Your task to perform on an android device: Clear the shopping cart on target. Add "dell xps" to the cart on target Image 0: 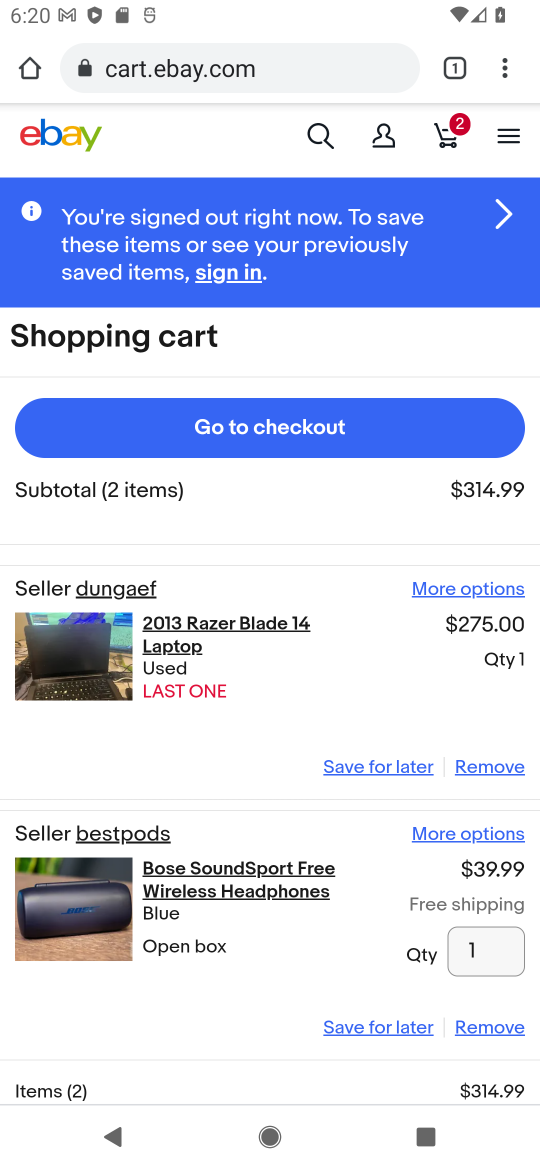
Step 0: press home button
Your task to perform on an android device: Clear the shopping cart on target. Add "dell xps" to the cart on target Image 1: 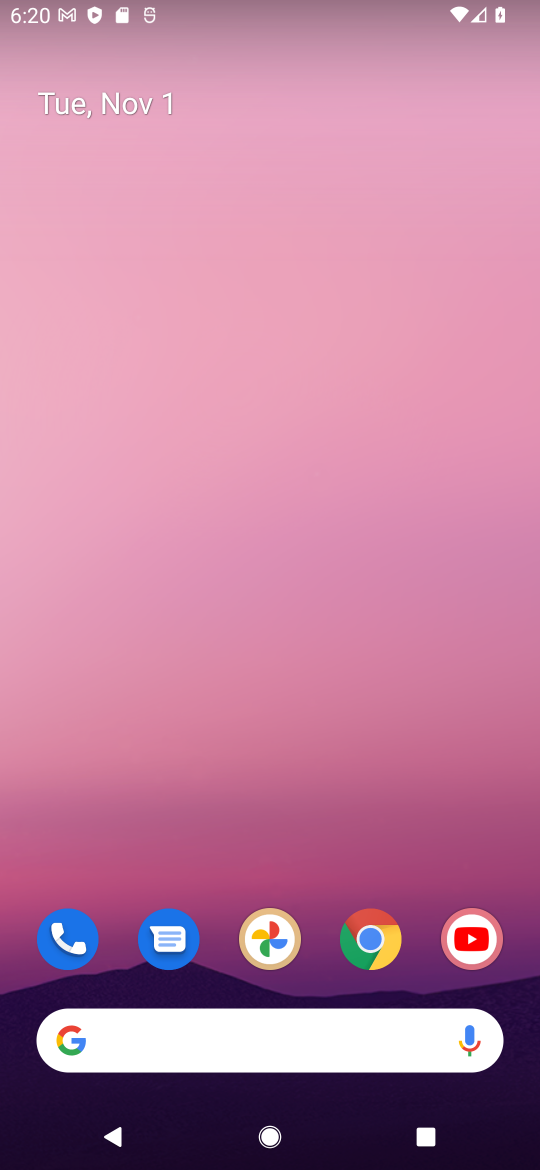
Step 1: drag from (288, 919) to (325, 87)
Your task to perform on an android device: Clear the shopping cart on target. Add "dell xps" to the cart on target Image 2: 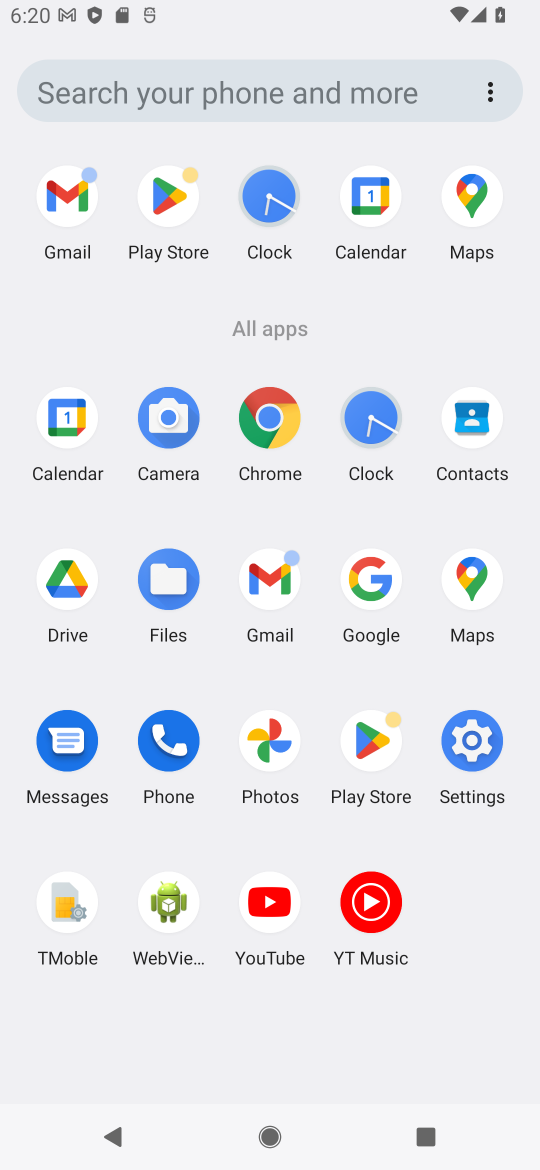
Step 2: click (261, 422)
Your task to perform on an android device: Clear the shopping cart on target. Add "dell xps" to the cart on target Image 3: 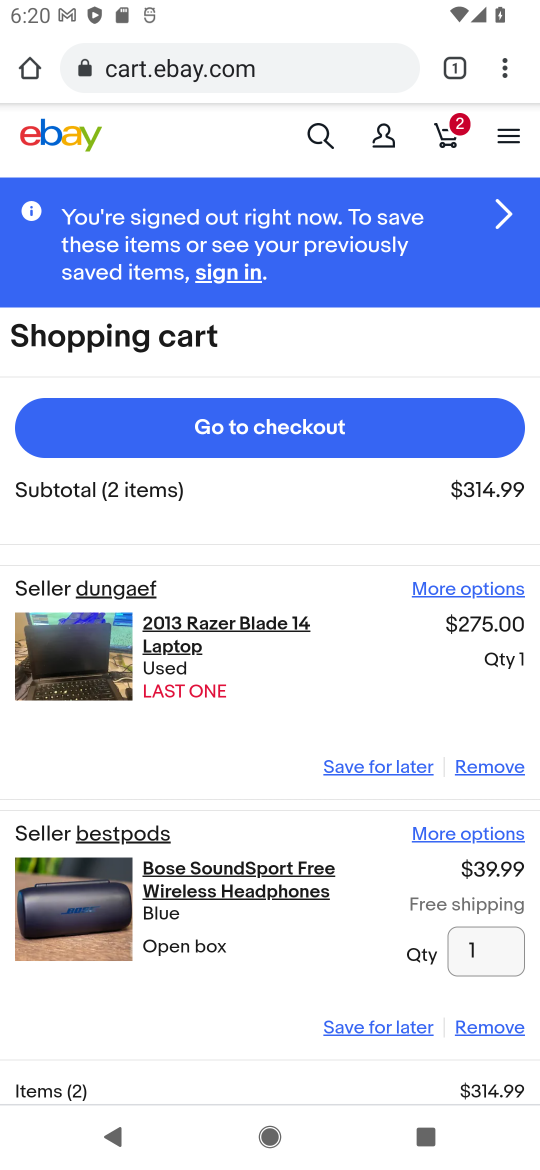
Step 3: click (239, 88)
Your task to perform on an android device: Clear the shopping cart on target. Add "dell xps" to the cart on target Image 4: 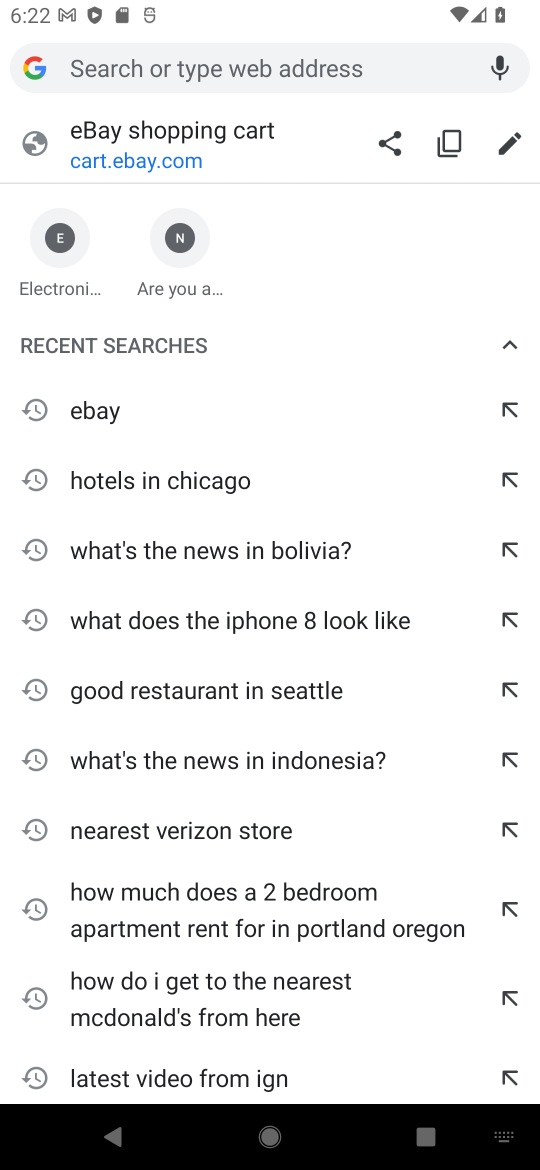
Step 4: type " target"
Your task to perform on an android device: Clear the shopping cart on target. Add "dell xps" to the cart on target Image 5: 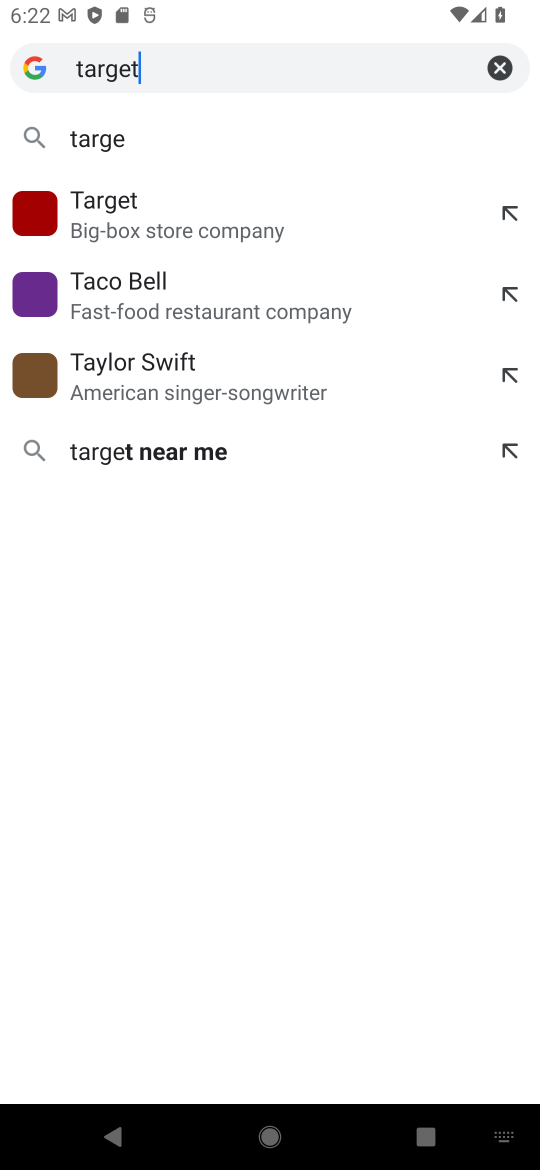
Step 5: press enter
Your task to perform on an android device: Clear the shopping cart on target. Add "dell xps" to the cart on target Image 6: 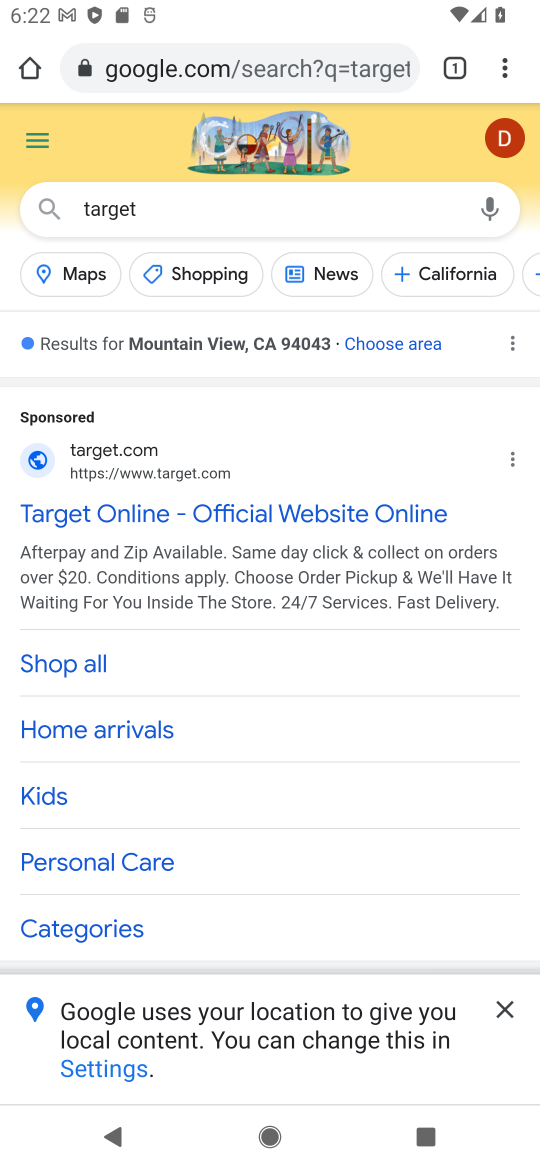
Step 6: click (136, 524)
Your task to perform on an android device: Clear the shopping cart on target. Add "dell xps" to the cart on target Image 7: 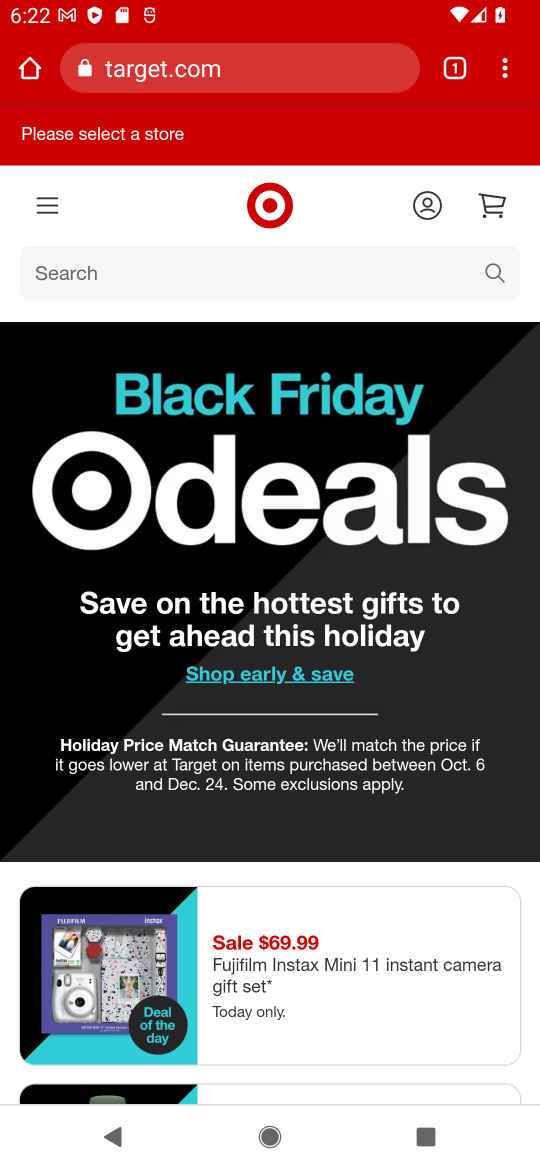
Step 7: click (195, 273)
Your task to perform on an android device: Clear the shopping cart on target. Add "dell xps" to the cart on target Image 8: 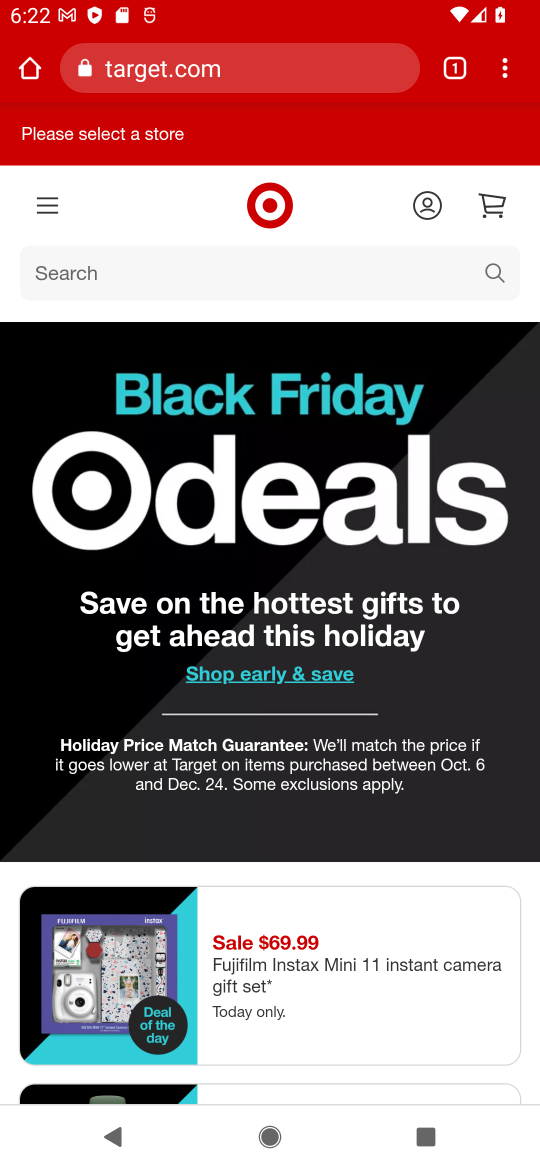
Step 8: click (195, 273)
Your task to perform on an android device: Clear the shopping cart on target. Add "dell xps" to the cart on target Image 9: 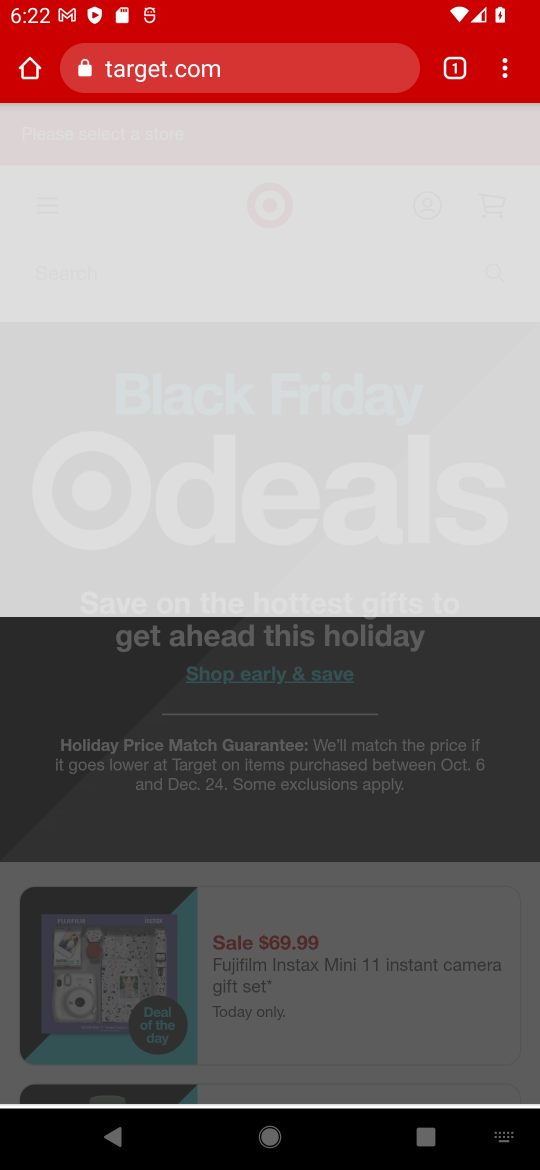
Step 9: click (201, 290)
Your task to perform on an android device: Clear the shopping cart on target. Add "dell xps" to the cart on target Image 10: 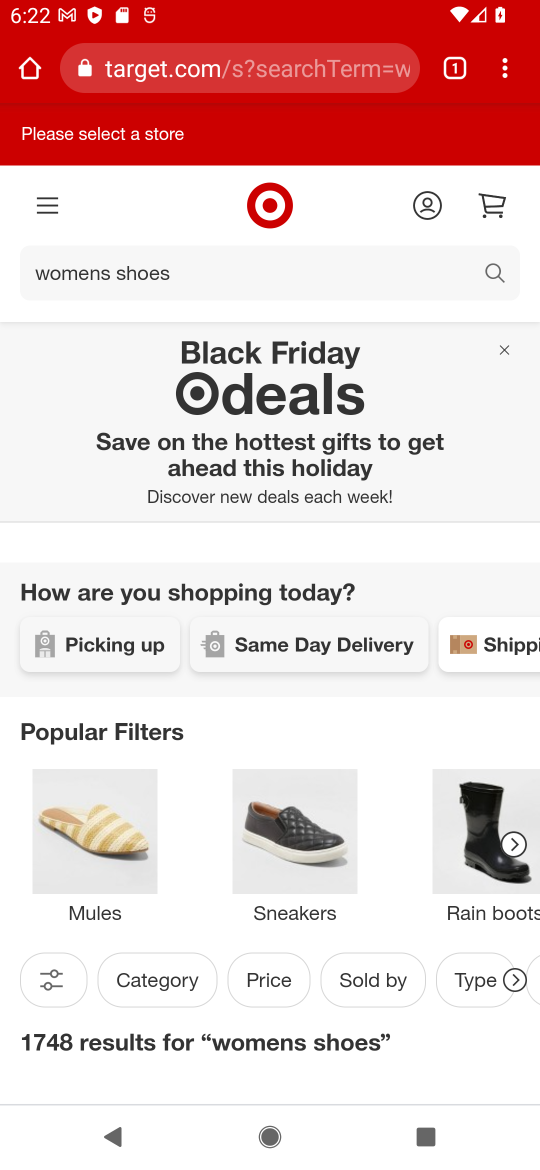
Step 10: click (239, 267)
Your task to perform on an android device: Clear the shopping cart on target. Add "dell xps" to the cart on target Image 11: 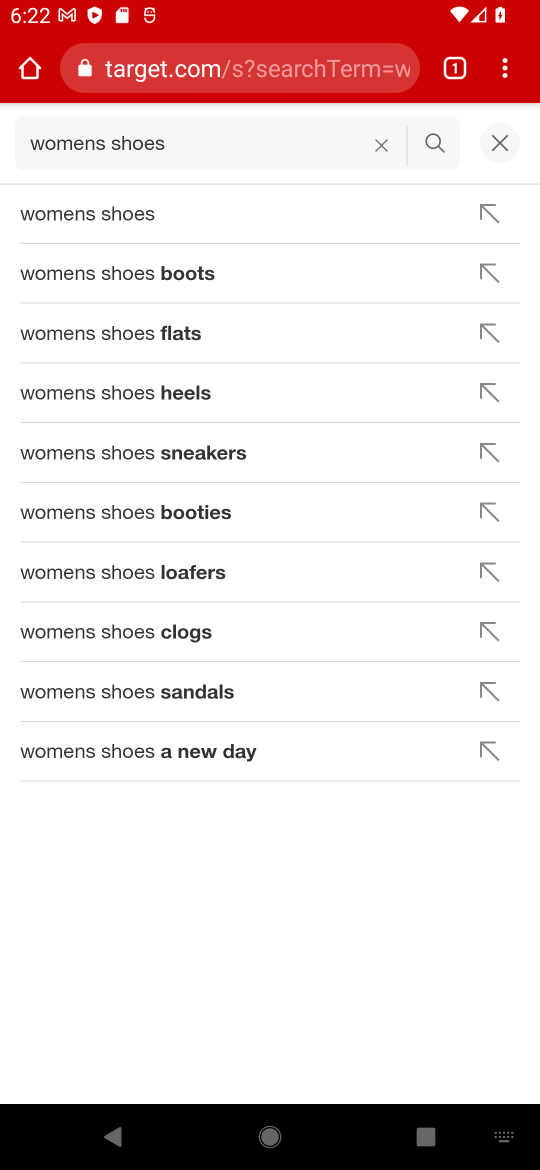
Step 11: click (386, 140)
Your task to perform on an android device: Clear the shopping cart on target. Add "dell xps" to the cart on target Image 12: 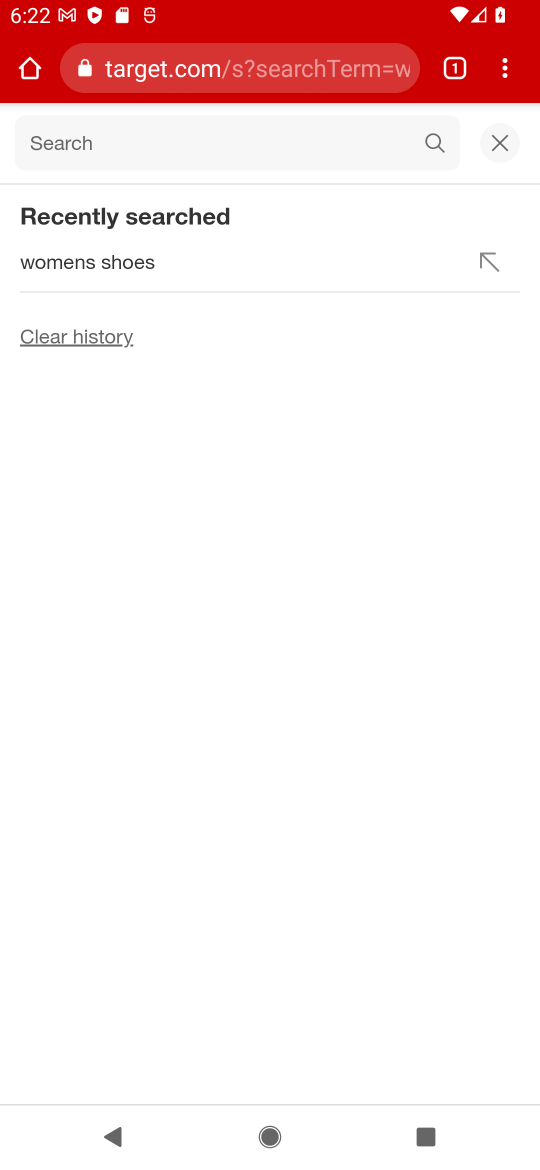
Step 12: type "dell xps"
Your task to perform on an android device: Clear the shopping cart on target. Add "dell xps" to the cart on target Image 13: 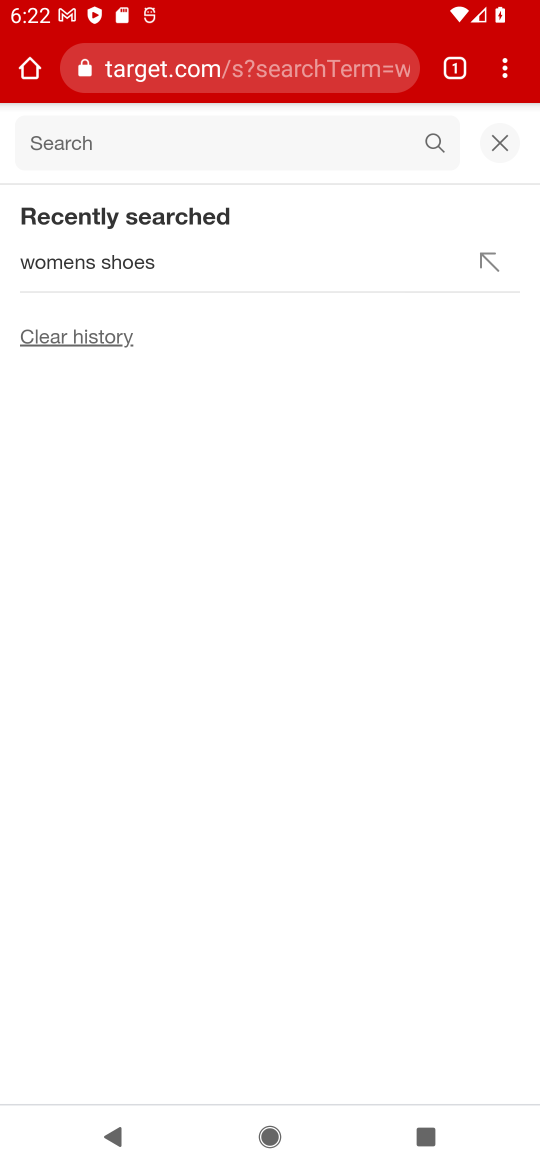
Step 13: press enter
Your task to perform on an android device: Clear the shopping cart on target. Add "dell xps" to the cart on target Image 14: 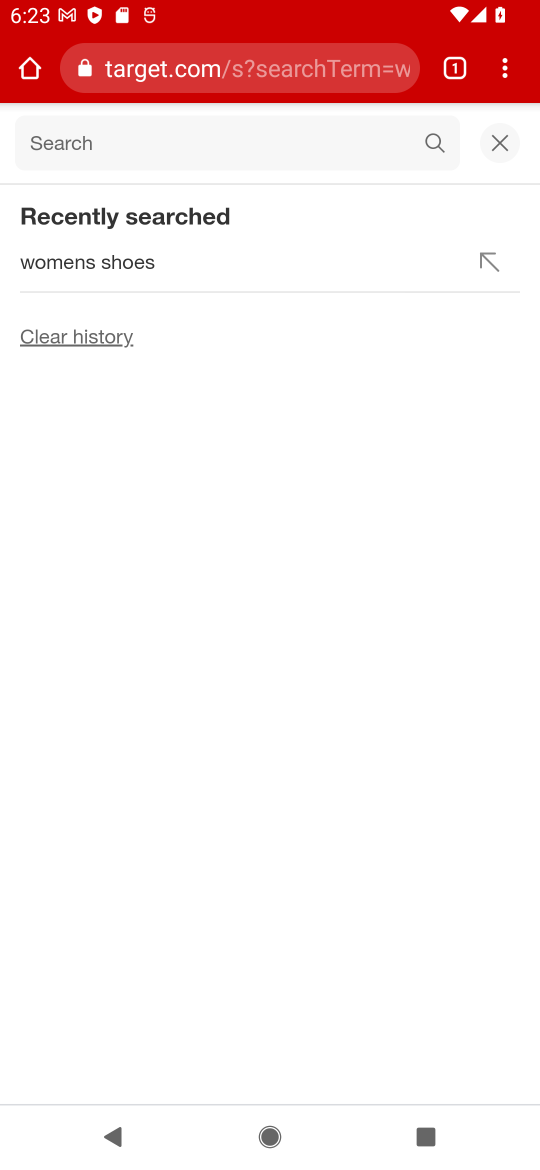
Step 14: click (182, 152)
Your task to perform on an android device: Clear the shopping cart on target. Add "dell xps" to the cart on target Image 15: 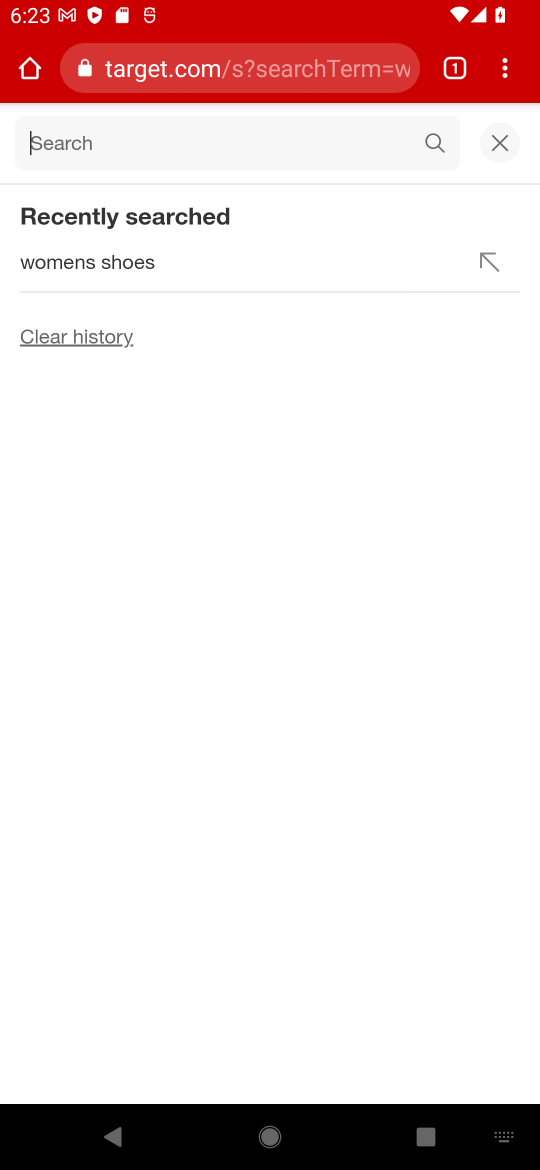
Step 15: type "dell xps"
Your task to perform on an android device: Clear the shopping cart on target. Add "dell xps" to the cart on target Image 16: 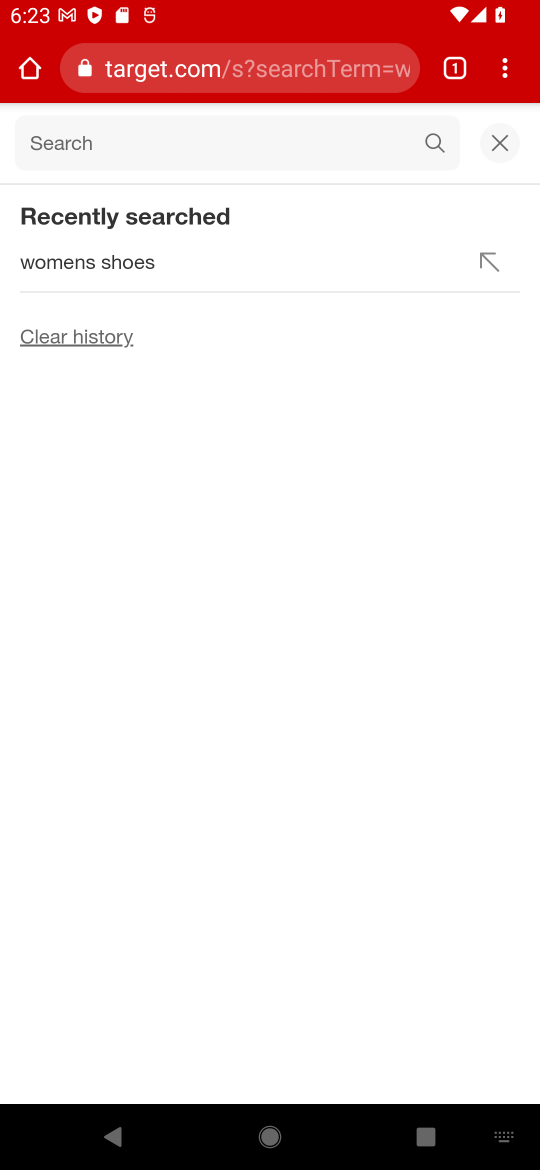
Step 16: press enter
Your task to perform on an android device: Clear the shopping cart on target. Add "dell xps" to the cart on target Image 17: 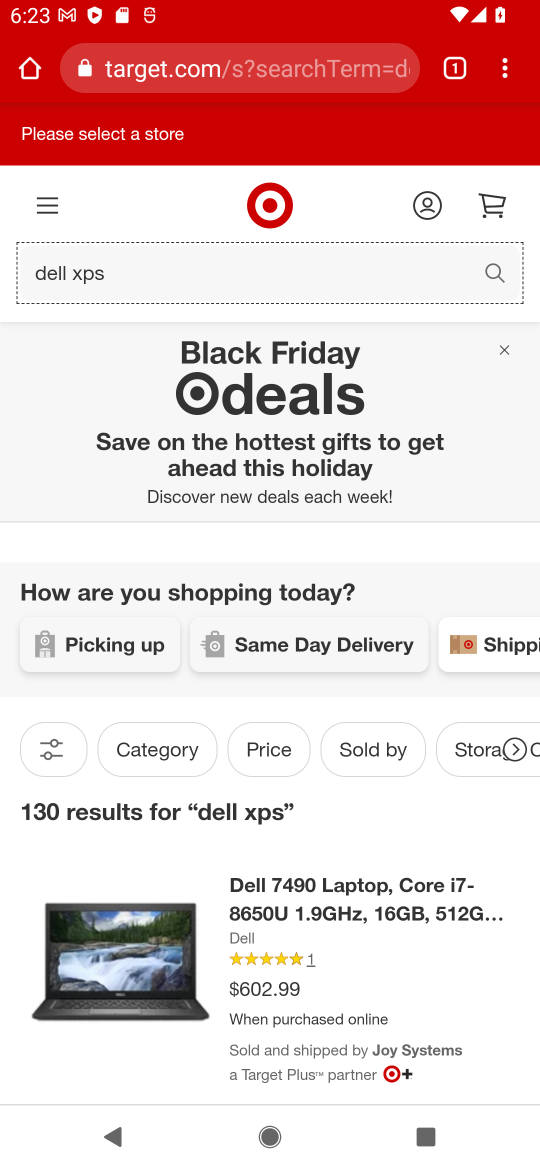
Step 17: drag from (90, 962) to (55, 472)
Your task to perform on an android device: Clear the shopping cart on target. Add "dell xps" to the cart on target Image 18: 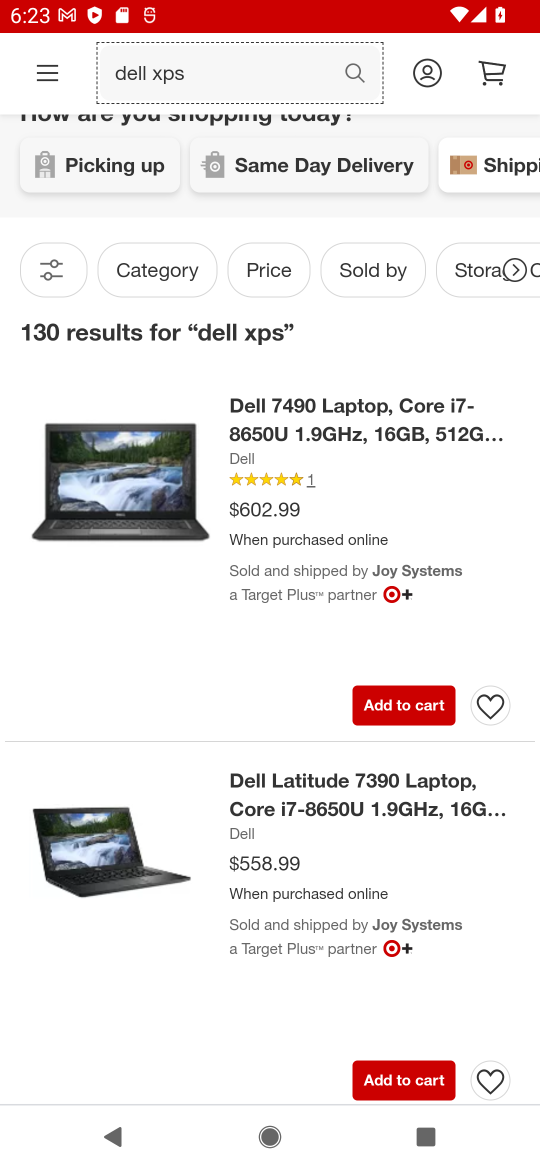
Step 18: click (442, 703)
Your task to perform on an android device: Clear the shopping cart on target. Add "dell xps" to the cart on target Image 19: 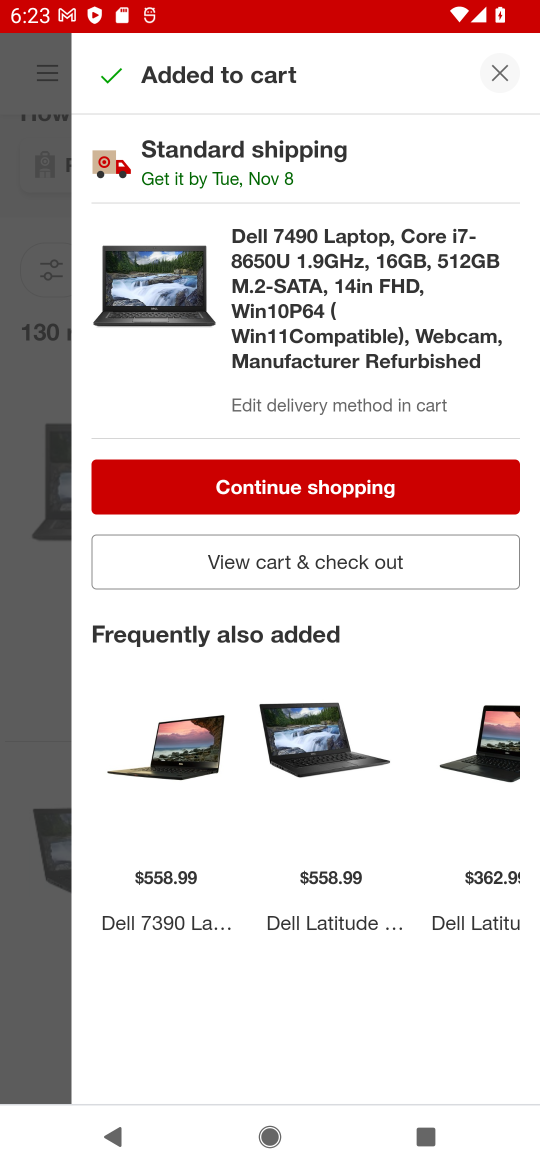
Step 19: task complete